Your task to perform on an android device: Show me popular videos on Youtube Image 0: 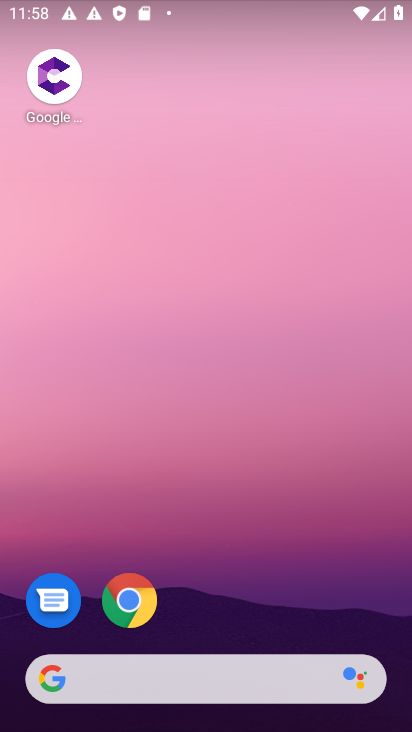
Step 0: drag from (315, 598) to (326, 195)
Your task to perform on an android device: Show me popular videos on Youtube Image 1: 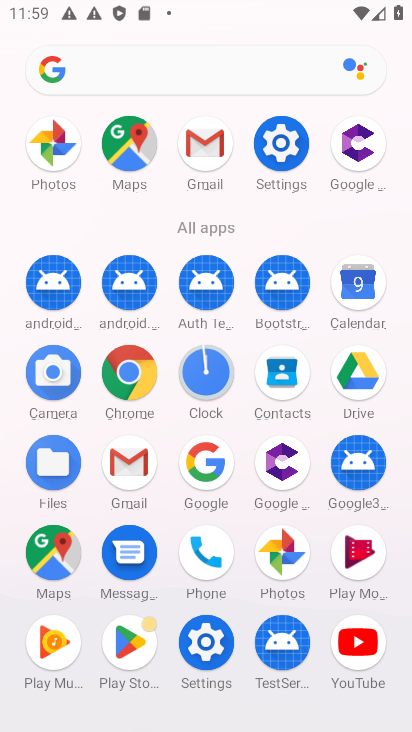
Step 1: click (354, 638)
Your task to perform on an android device: Show me popular videos on Youtube Image 2: 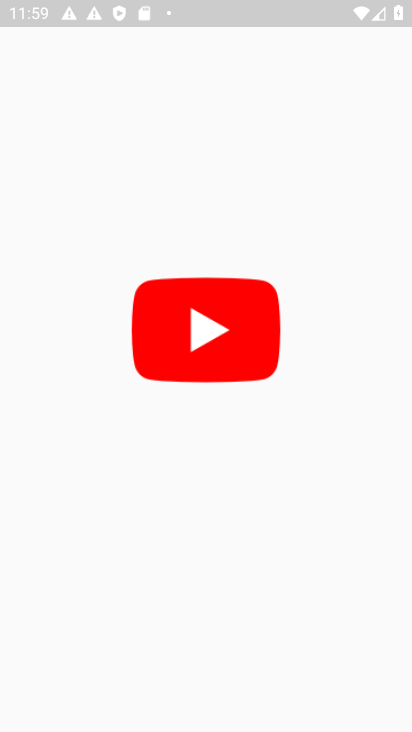
Step 2: click (354, 638)
Your task to perform on an android device: Show me popular videos on Youtube Image 3: 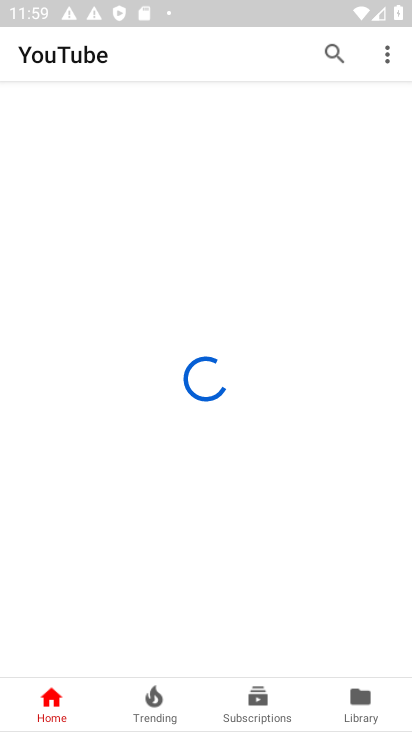
Step 3: task complete